Your task to perform on an android device: turn off smart reply in the gmail app Image 0: 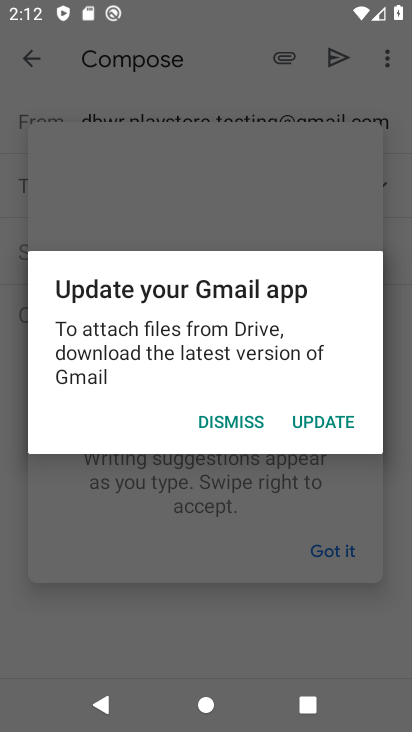
Step 0: press home button
Your task to perform on an android device: turn off smart reply in the gmail app Image 1: 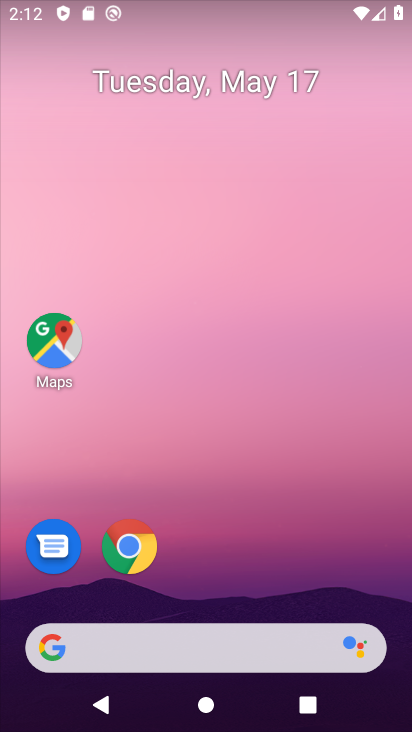
Step 1: drag from (255, 527) to (293, 138)
Your task to perform on an android device: turn off smart reply in the gmail app Image 2: 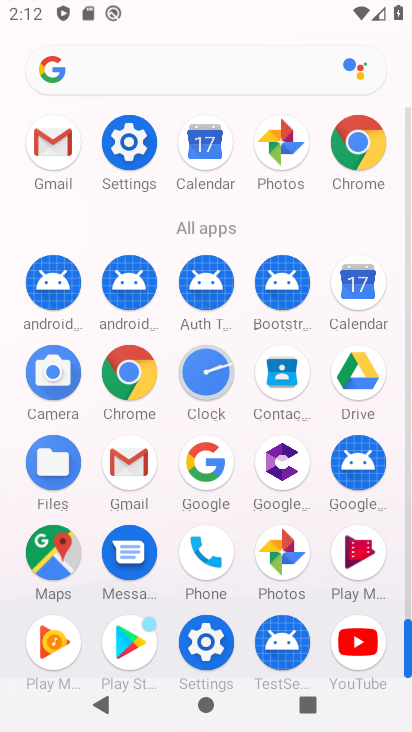
Step 2: click (138, 481)
Your task to perform on an android device: turn off smart reply in the gmail app Image 3: 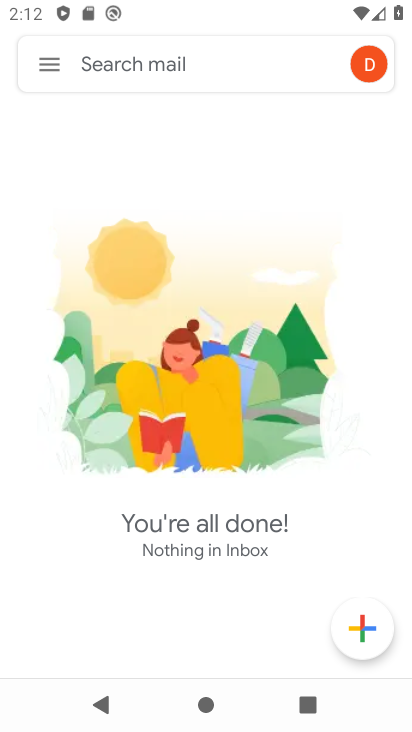
Step 3: click (57, 67)
Your task to perform on an android device: turn off smart reply in the gmail app Image 4: 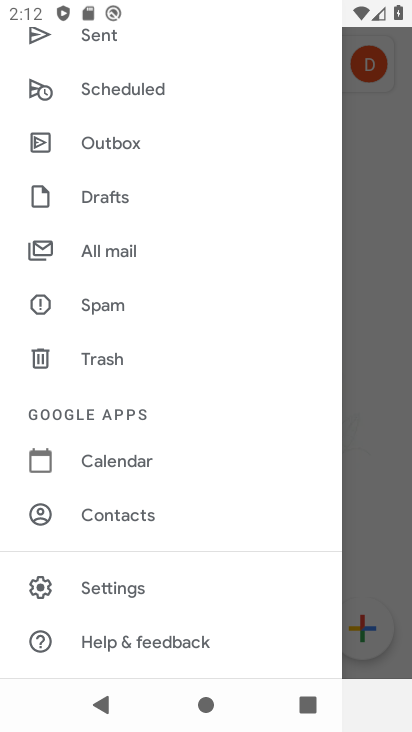
Step 4: click (138, 582)
Your task to perform on an android device: turn off smart reply in the gmail app Image 5: 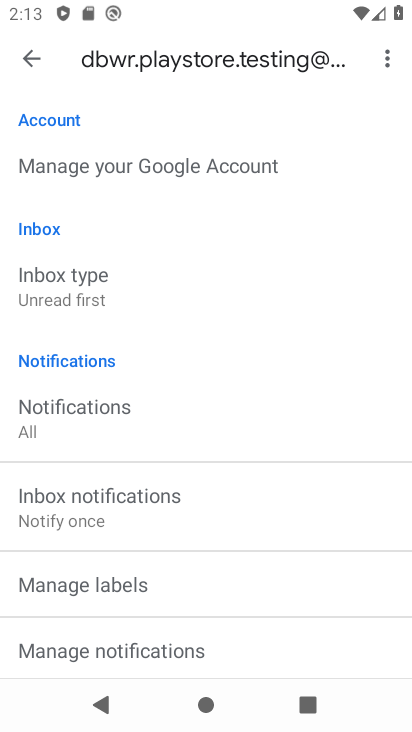
Step 5: drag from (198, 550) to (244, 220)
Your task to perform on an android device: turn off smart reply in the gmail app Image 6: 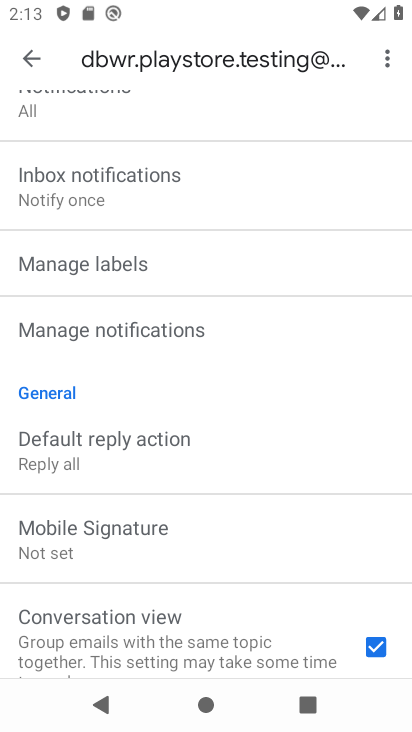
Step 6: drag from (202, 579) to (260, 332)
Your task to perform on an android device: turn off smart reply in the gmail app Image 7: 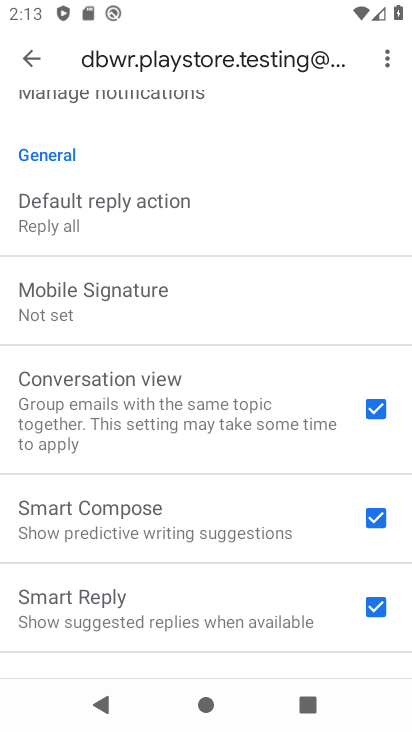
Step 7: click (378, 615)
Your task to perform on an android device: turn off smart reply in the gmail app Image 8: 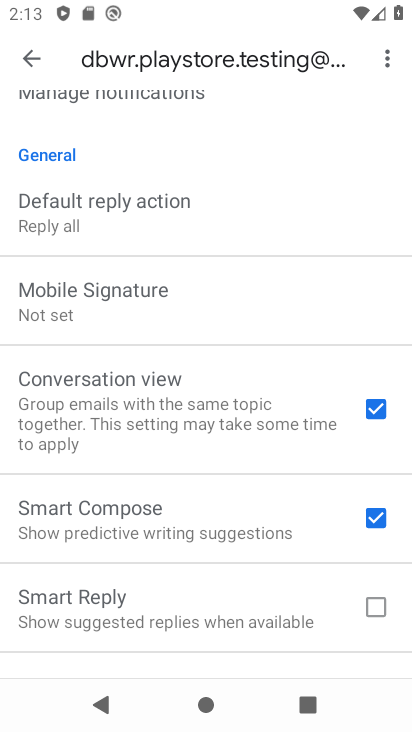
Step 8: task complete